Your task to perform on an android device: Go to Google Image 0: 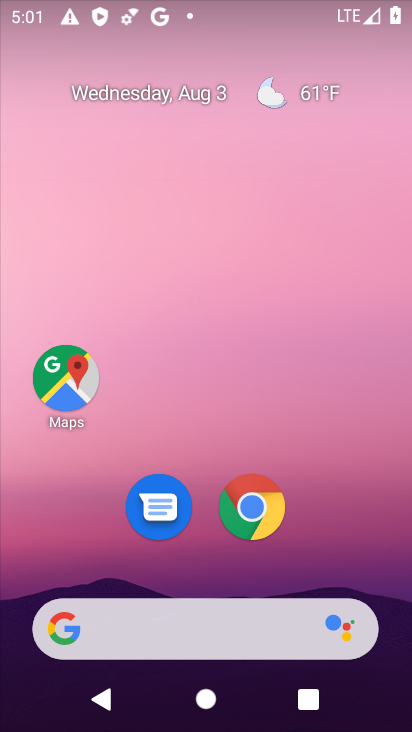
Step 0: drag from (323, 562) to (341, 93)
Your task to perform on an android device: Go to Google Image 1: 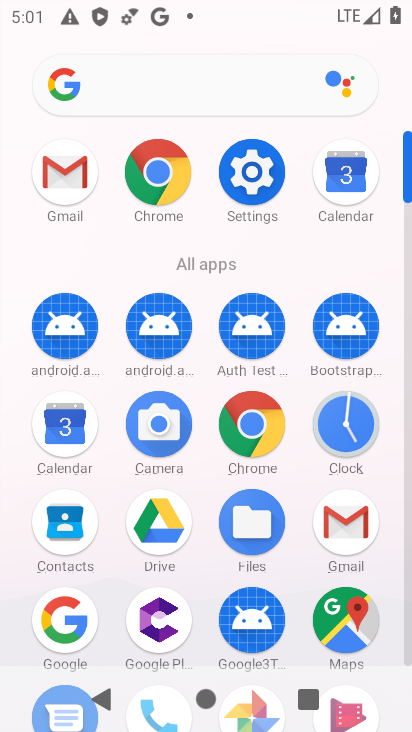
Step 1: drag from (295, 580) to (324, 169)
Your task to perform on an android device: Go to Google Image 2: 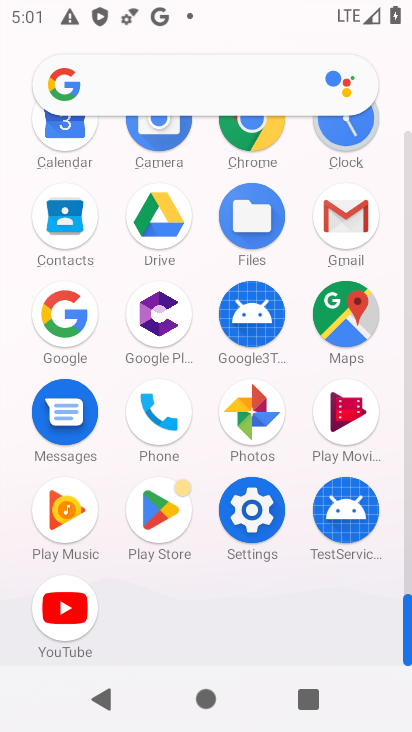
Step 2: click (73, 318)
Your task to perform on an android device: Go to Google Image 3: 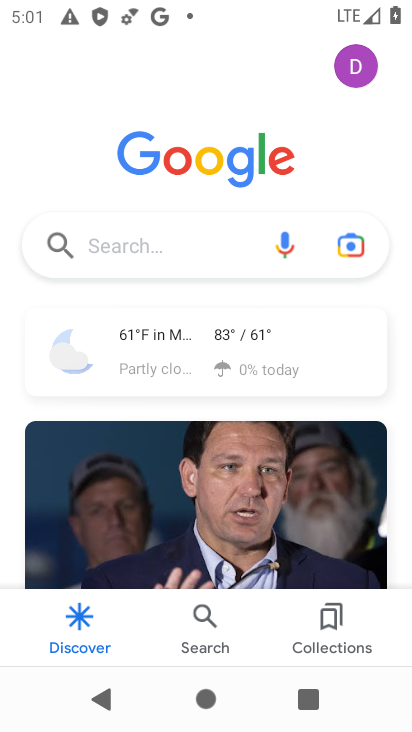
Step 3: task complete